Your task to perform on an android device: search for starred emails in the gmail app Image 0: 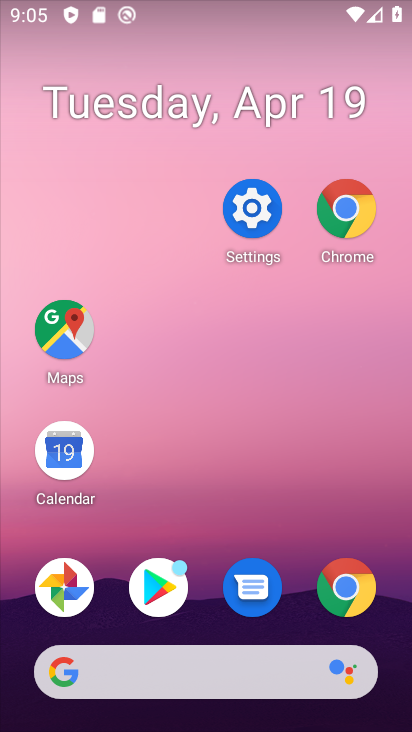
Step 0: drag from (308, 713) to (185, 260)
Your task to perform on an android device: search for starred emails in the gmail app Image 1: 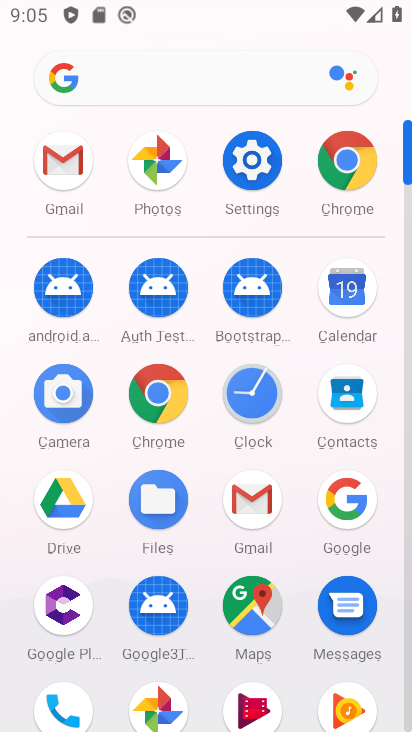
Step 1: click (246, 508)
Your task to perform on an android device: search for starred emails in the gmail app Image 2: 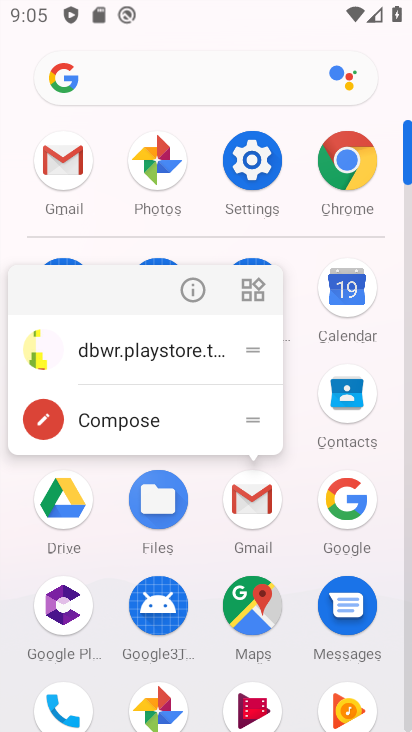
Step 2: click (246, 508)
Your task to perform on an android device: search for starred emails in the gmail app Image 3: 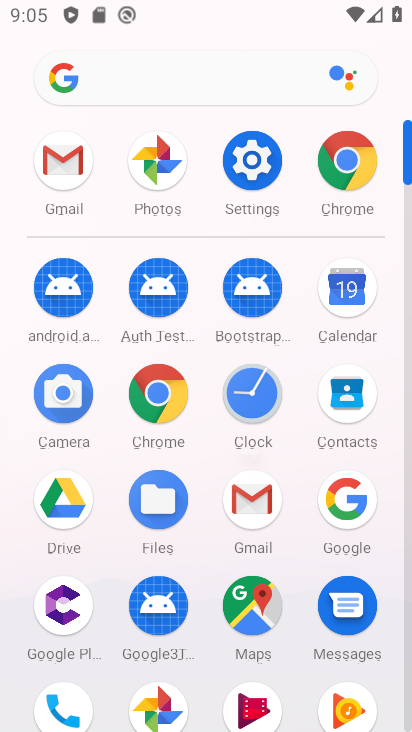
Step 3: click (247, 509)
Your task to perform on an android device: search for starred emails in the gmail app Image 4: 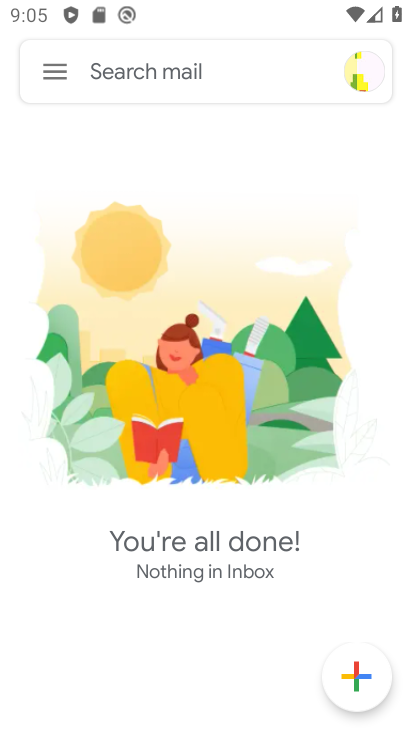
Step 4: click (61, 73)
Your task to perform on an android device: search for starred emails in the gmail app Image 5: 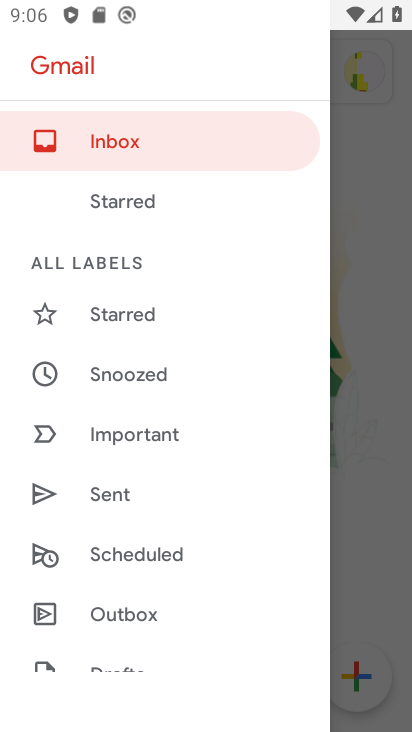
Step 5: click (390, 318)
Your task to perform on an android device: search for starred emails in the gmail app Image 6: 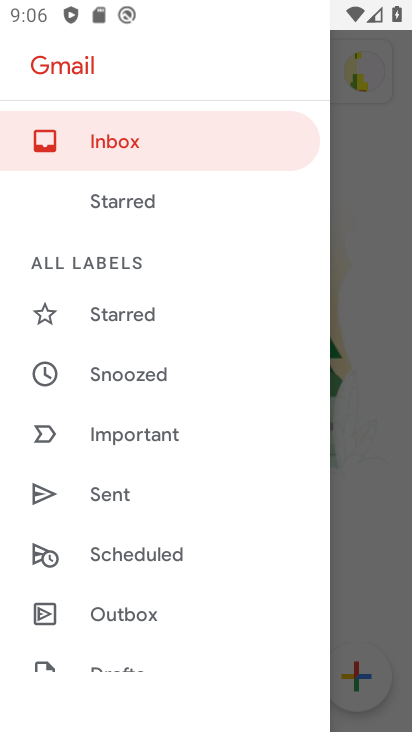
Step 6: click (390, 318)
Your task to perform on an android device: search for starred emails in the gmail app Image 7: 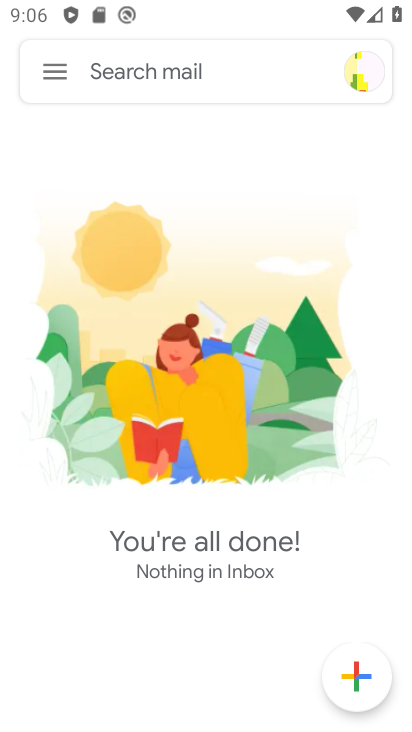
Step 7: click (64, 75)
Your task to perform on an android device: search for starred emails in the gmail app Image 8: 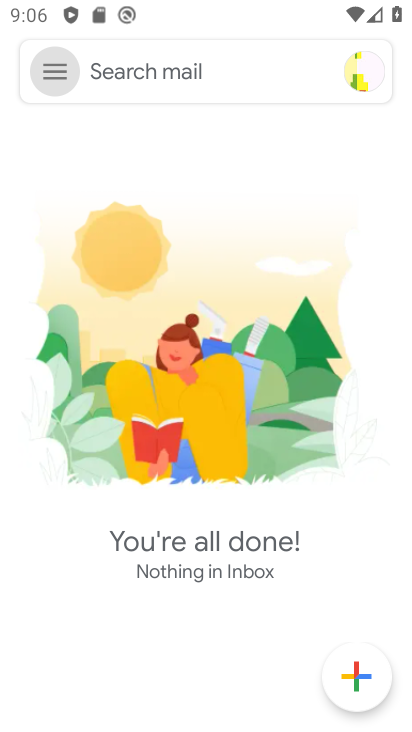
Step 8: click (64, 75)
Your task to perform on an android device: search for starred emails in the gmail app Image 9: 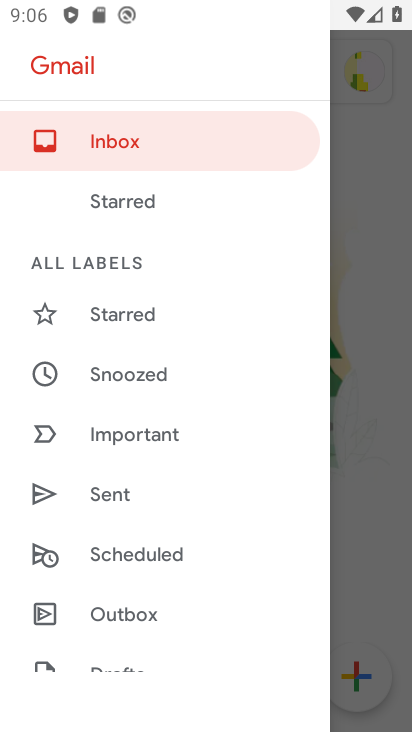
Step 9: click (348, 582)
Your task to perform on an android device: search for starred emails in the gmail app Image 10: 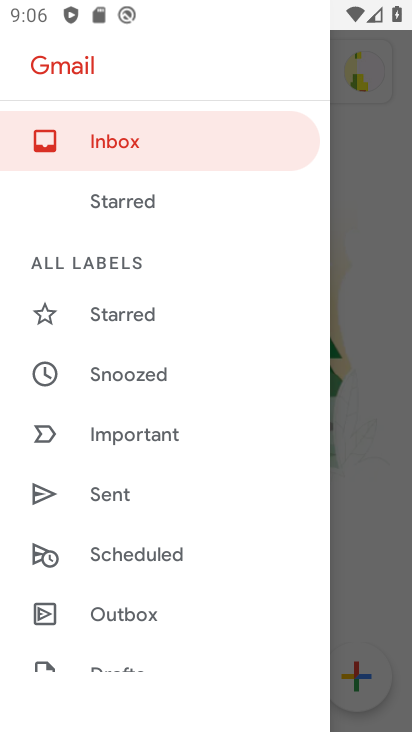
Step 10: click (367, 399)
Your task to perform on an android device: search for starred emails in the gmail app Image 11: 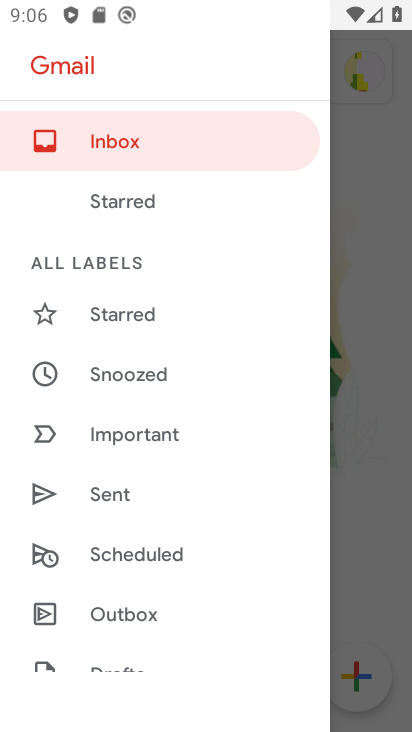
Step 11: click (365, 359)
Your task to perform on an android device: search for starred emails in the gmail app Image 12: 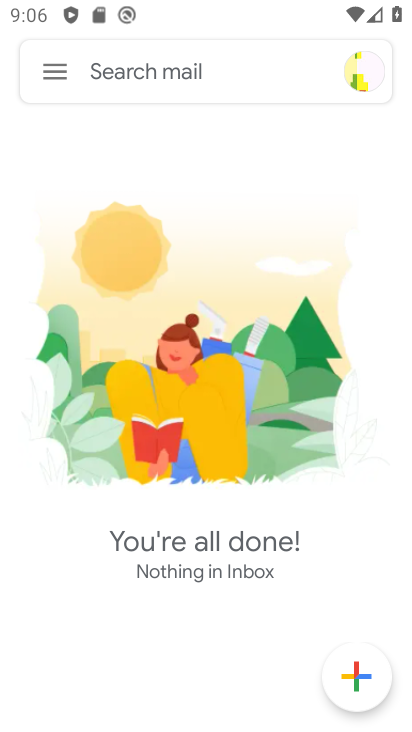
Step 12: click (378, 329)
Your task to perform on an android device: search for starred emails in the gmail app Image 13: 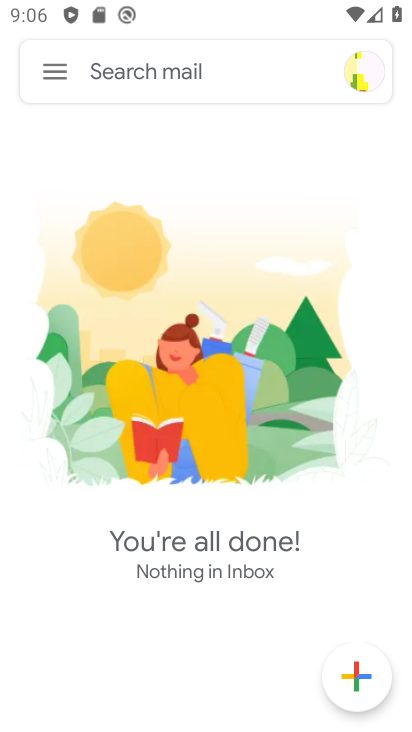
Step 13: click (379, 328)
Your task to perform on an android device: search for starred emails in the gmail app Image 14: 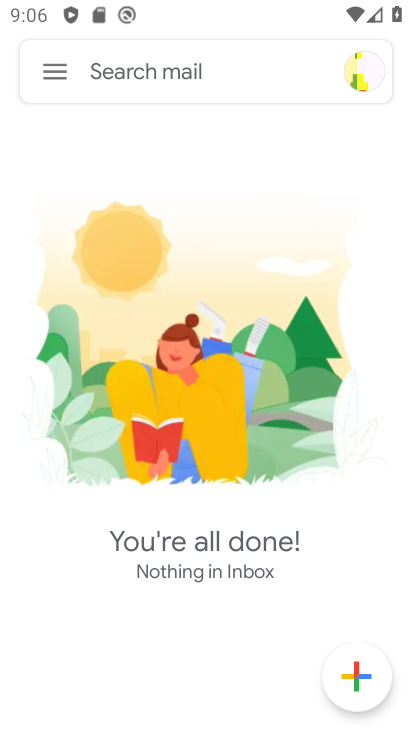
Step 14: click (49, 70)
Your task to perform on an android device: search for starred emails in the gmail app Image 15: 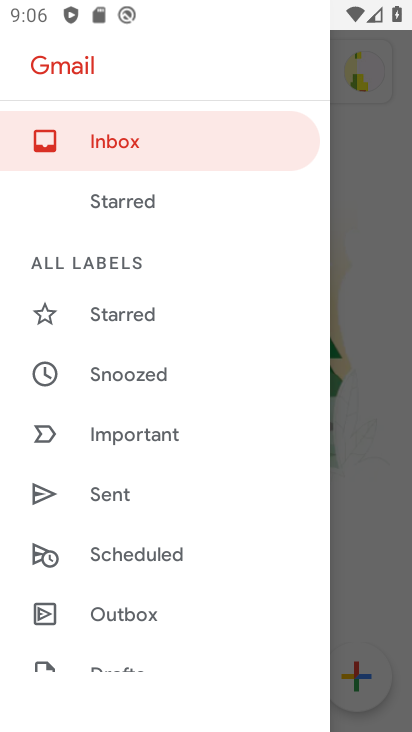
Step 15: drag from (366, 446) to (369, 412)
Your task to perform on an android device: search for starred emails in the gmail app Image 16: 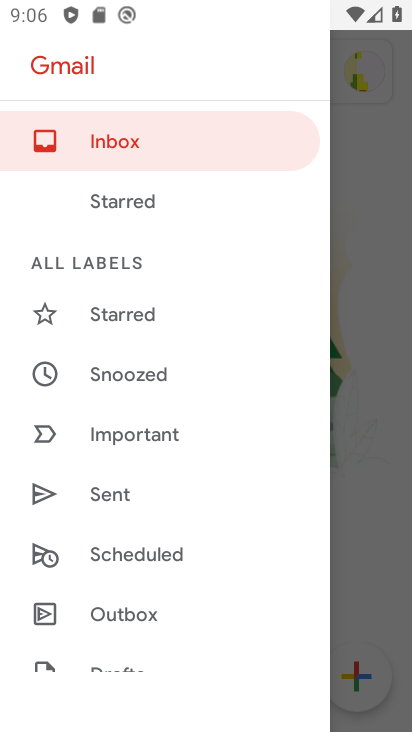
Step 16: click (368, 410)
Your task to perform on an android device: search for starred emails in the gmail app Image 17: 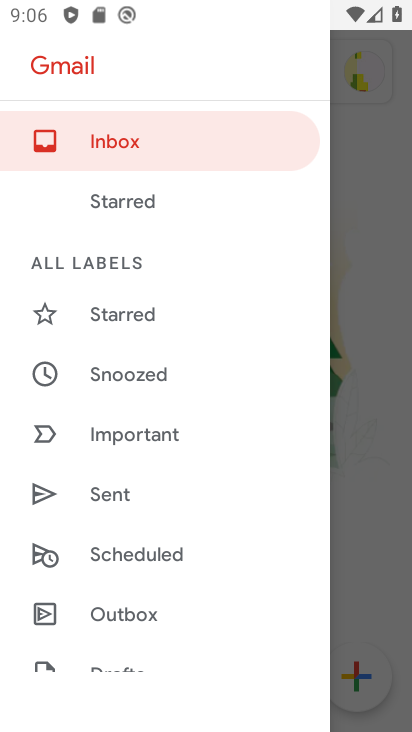
Step 17: click (368, 410)
Your task to perform on an android device: search for starred emails in the gmail app Image 18: 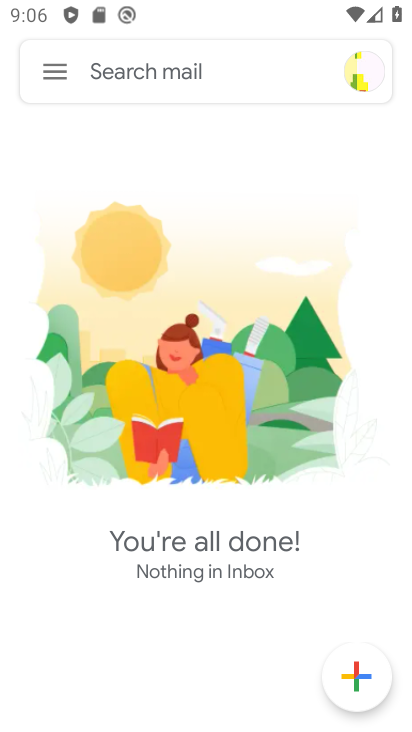
Step 18: press home button
Your task to perform on an android device: search for starred emails in the gmail app Image 19: 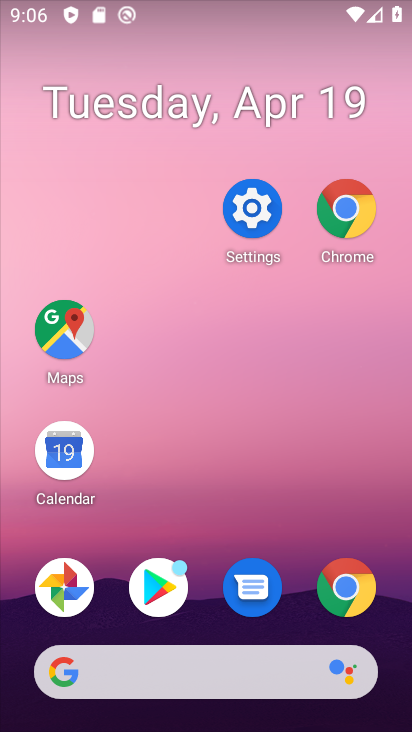
Step 19: drag from (311, 671) to (62, 62)
Your task to perform on an android device: search for starred emails in the gmail app Image 20: 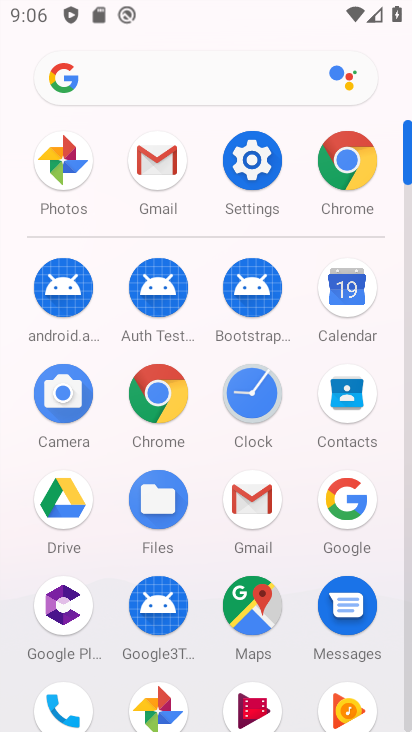
Step 20: drag from (245, 489) to (107, 117)
Your task to perform on an android device: search for starred emails in the gmail app Image 21: 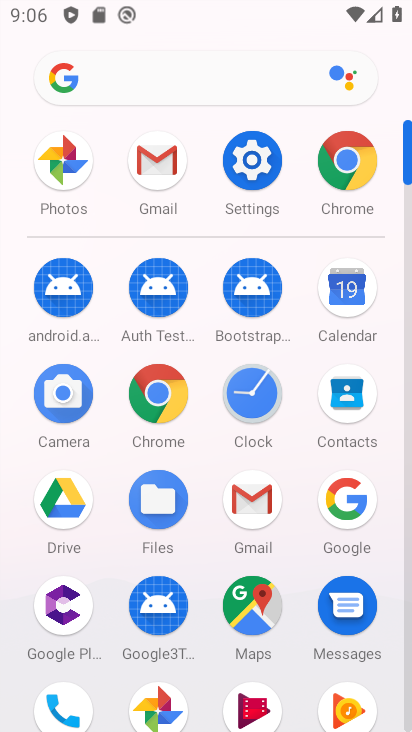
Step 21: click (241, 504)
Your task to perform on an android device: search for starred emails in the gmail app Image 22: 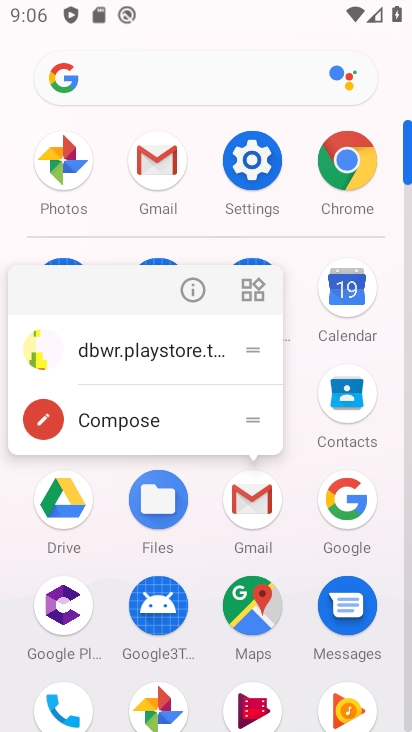
Step 22: click (241, 504)
Your task to perform on an android device: search for starred emails in the gmail app Image 23: 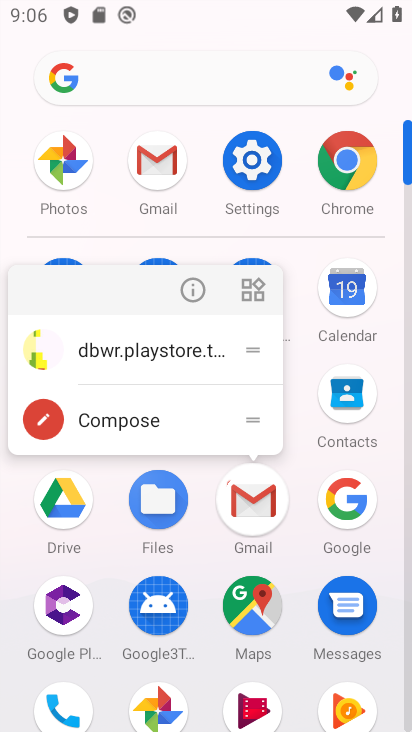
Step 23: click (241, 504)
Your task to perform on an android device: search for starred emails in the gmail app Image 24: 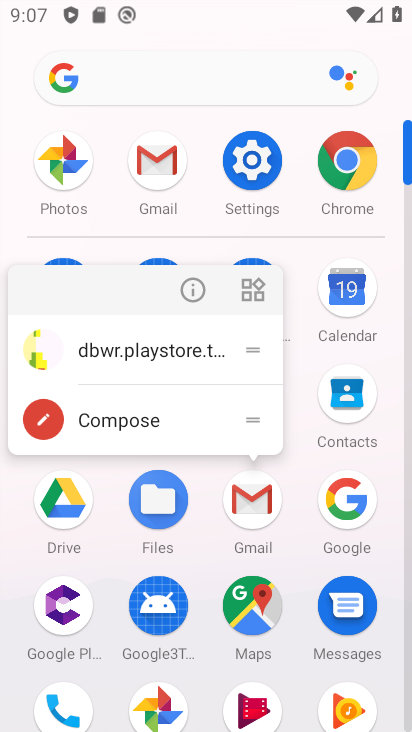
Step 24: click (237, 502)
Your task to perform on an android device: search for starred emails in the gmail app Image 25: 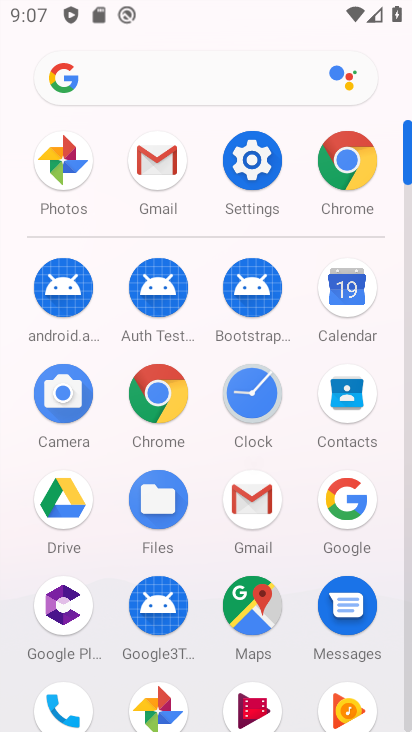
Step 25: click (237, 502)
Your task to perform on an android device: search for starred emails in the gmail app Image 26: 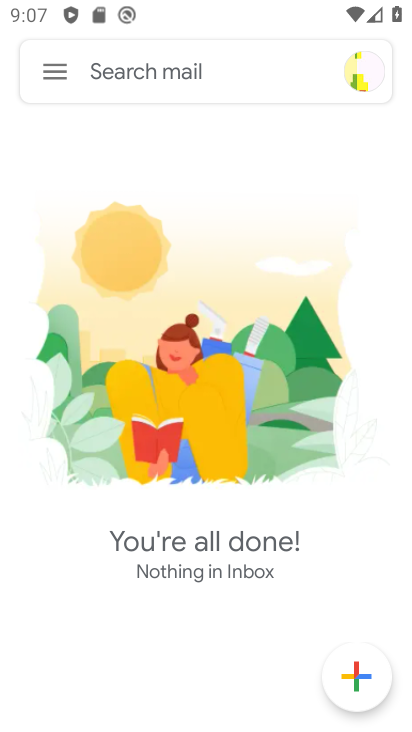
Step 26: click (67, 61)
Your task to perform on an android device: search for starred emails in the gmail app Image 27: 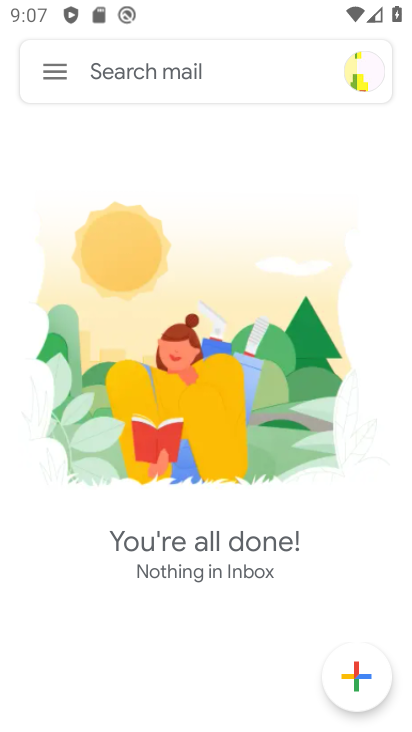
Step 27: click (52, 69)
Your task to perform on an android device: search for starred emails in the gmail app Image 28: 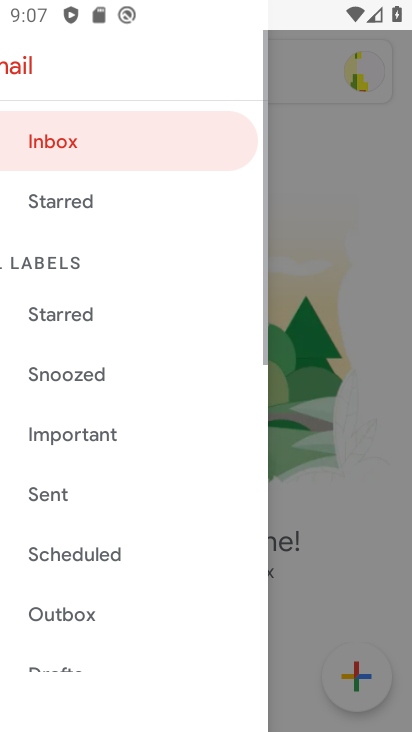
Step 28: click (52, 69)
Your task to perform on an android device: search for starred emails in the gmail app Image 29: 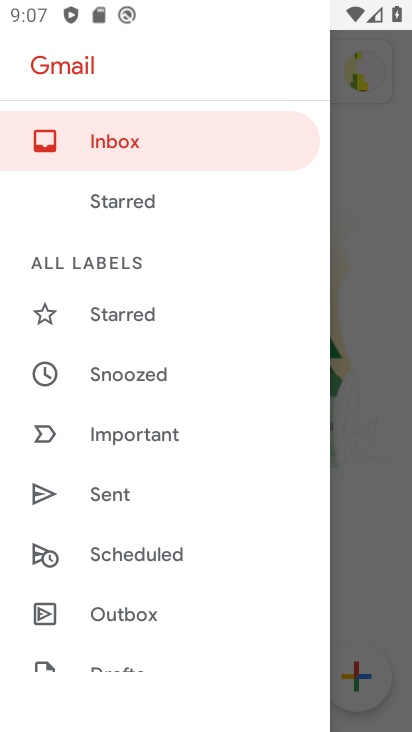
Step 29: drag from (220, 430) to (250, 242)
Your task to perform on an android device: search for starred emails in the gmail app Image 30: 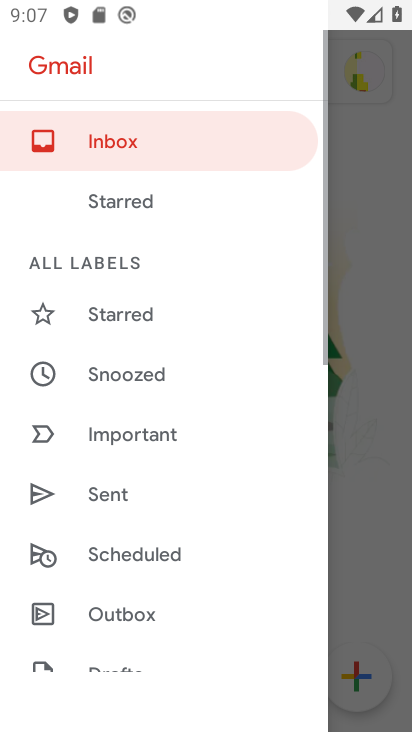
Step 30: drag from (258, 308) to (203, 200)
Your task to perform on an android device: search for starred emails in the gmail app Image 31: 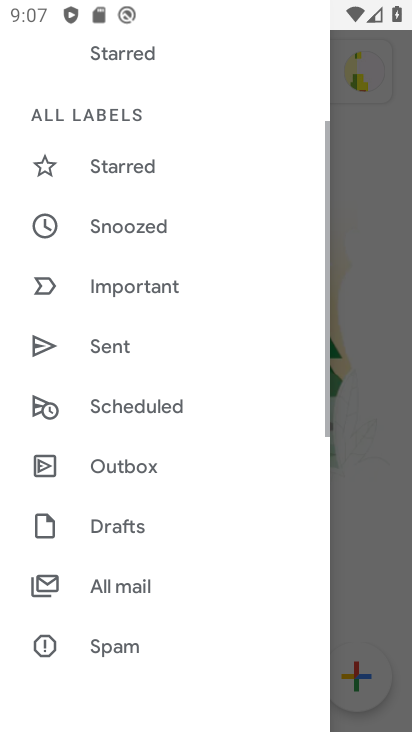
Step 31: drag from (202, 435) to (260, 204)
Your task to perform on an android device: search for starred emails in the gmail app Image 32: 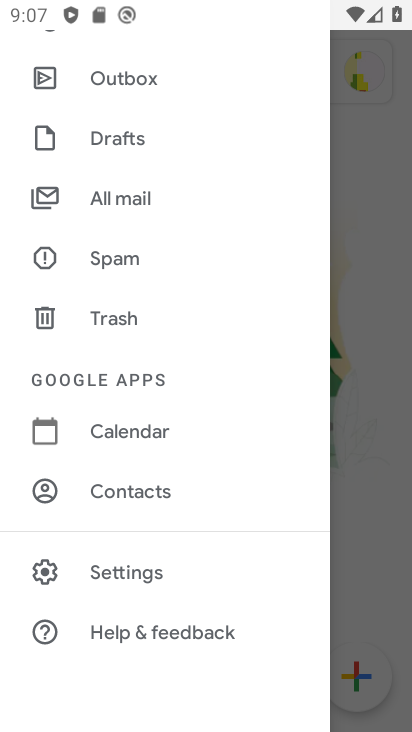
Step 32: click (122, 195)
Your task to perform on an android device: search for starred emails in the gmail app Image 33: 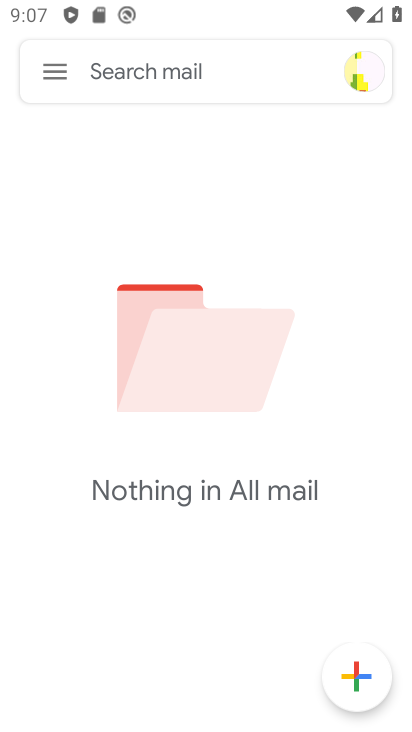
Step 33: task complete